Your task to perform on an android device: Open the map Image 0: 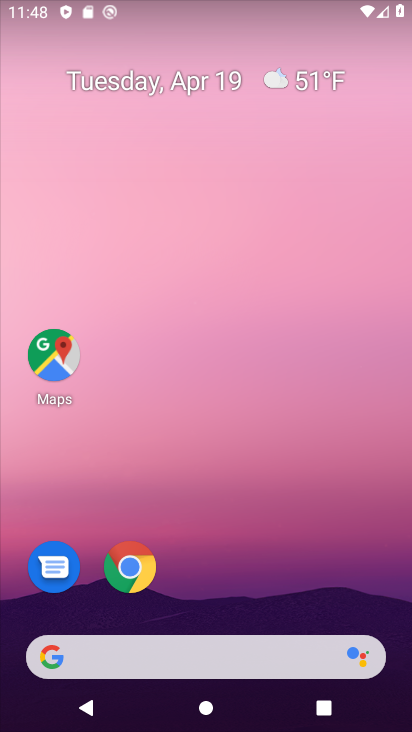
Step 0: click (63, 351)
Your task to perform on an android device: Open the map Image 1: 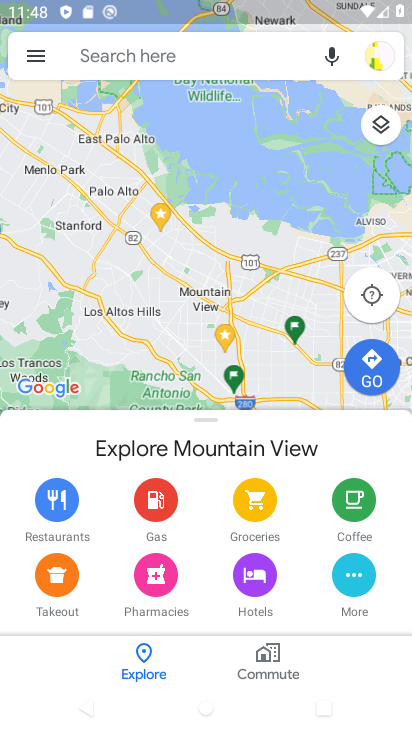
Step 1: task complete